Your task to perform on an android device: change the clock display to digital Image 0: 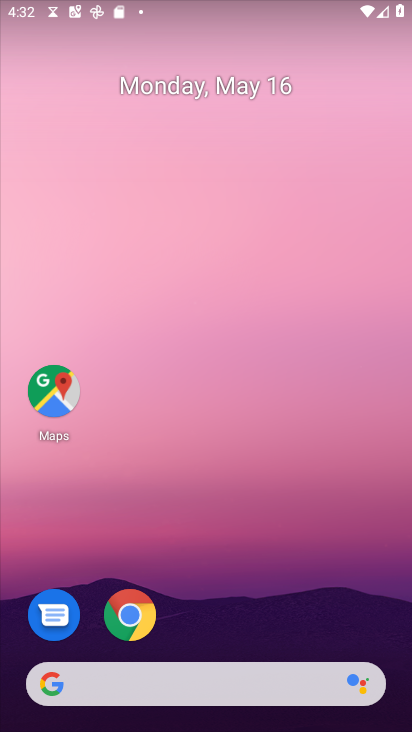
Step 0: drag from (280, 634) to (384, 1)
Your task to perform on an android device: change the clock display to digital Image 1: 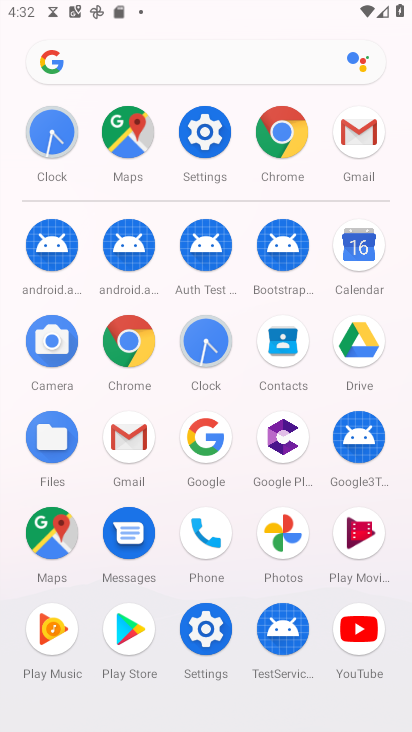
Step 1: click (222, 345)
Your task to perform on an android device: change the clock display to digital Image 2: 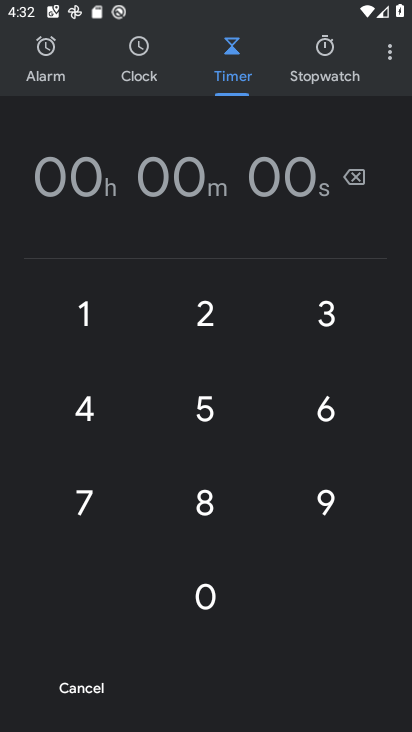
Step 2: click (389, 54)
Your task to perform on an android device: change the clock display to digital Image 3: 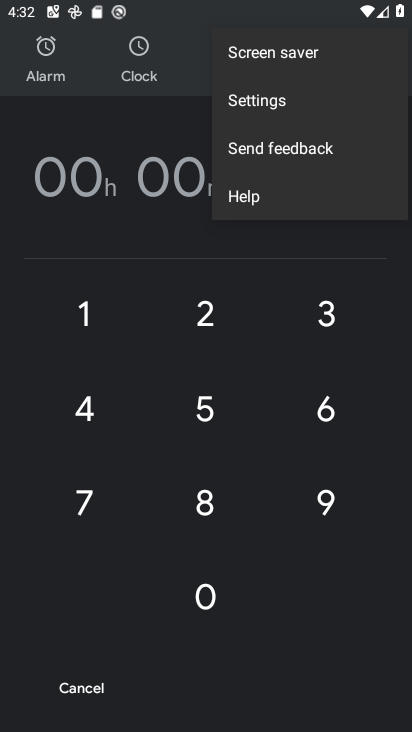
Step 3: click (285, 120)
Your task to perform on an android device: change the clock display to digital Image 4: 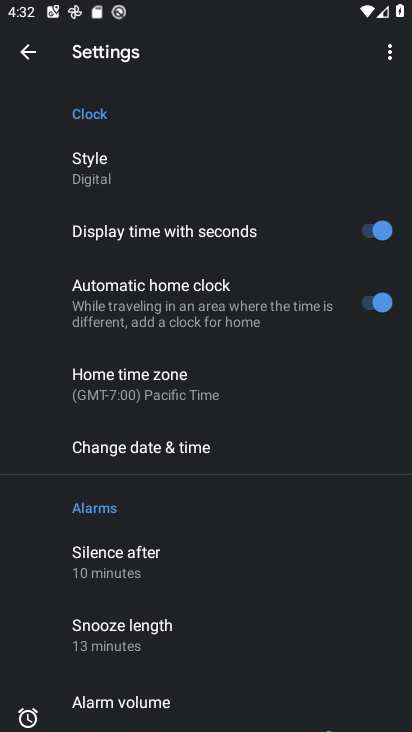
Step 4: click (88, 185)
Your task to perform on an android device: change the clock display to digital Image 5: 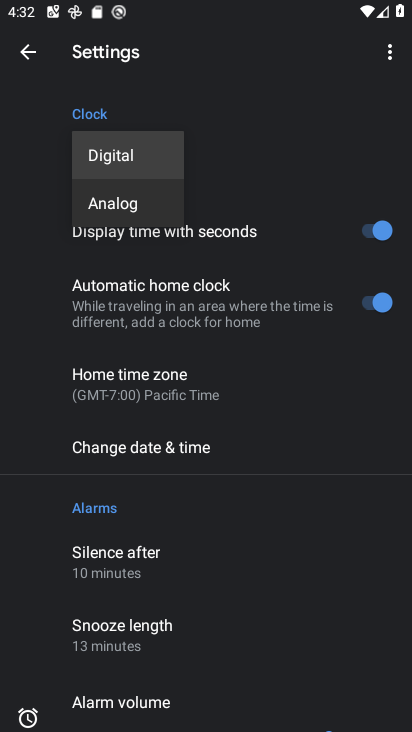
Step 5: task complete